Your task to perform on an android device: Open Reddit.com Image 0: 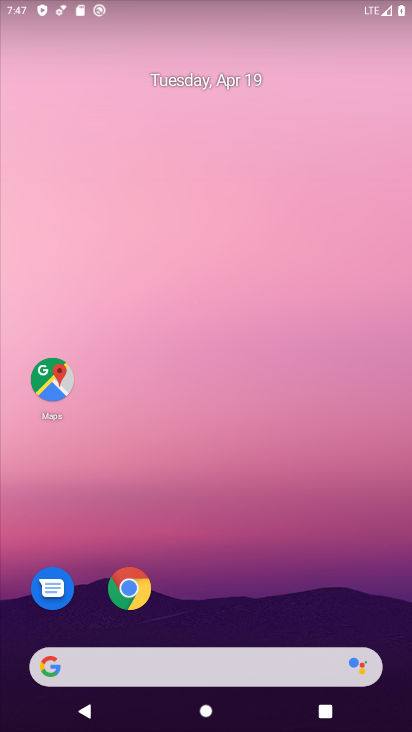
Step 0: drag from (208, 527) to (196, 50)
Your task to perform on an android device: Open Reddit.com Image 1: 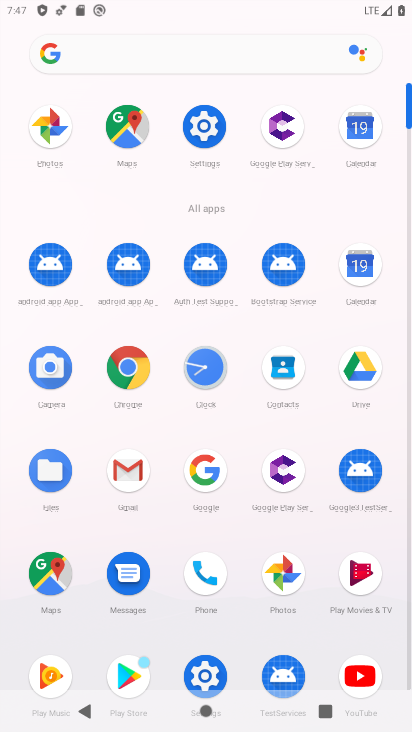
Step 1: click (125, 370)
Your task to perform on an android device: Open Reddit.com Image 2: 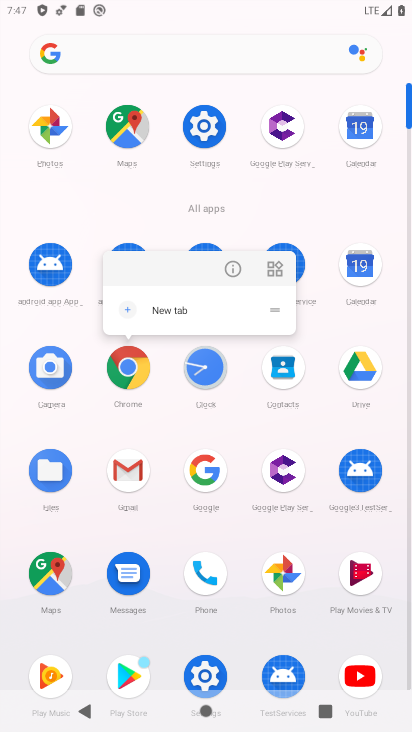
Step 2: click (129, 370)
Your task to perform on an android device: Open Reddit.com Image 3: 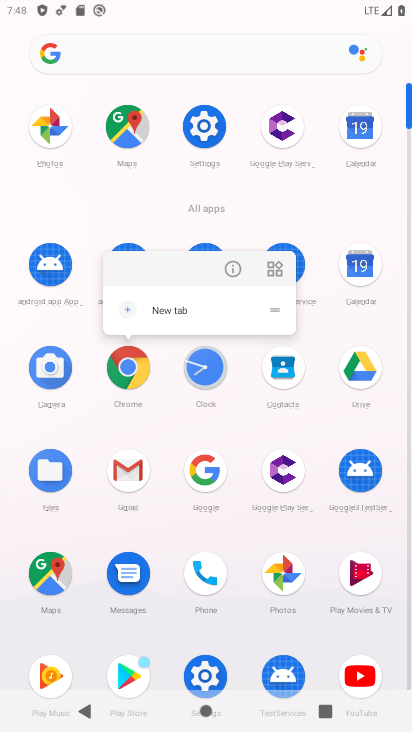
Step 3: click (117, 372)
Your task to perform on an android device: Open Reddit.com Image 4: 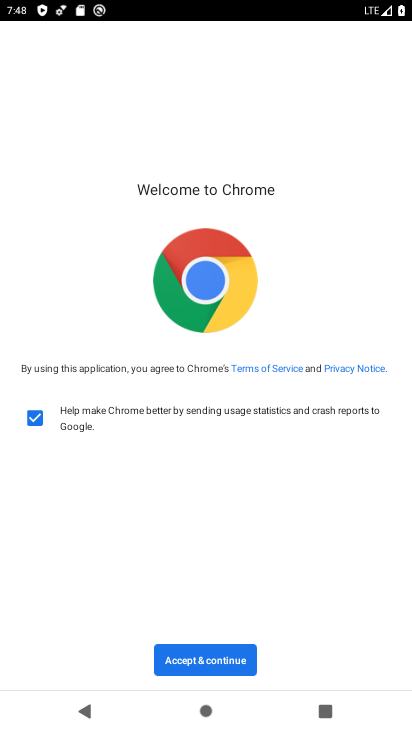
Step 4: click (214, 650)
Your task to perform on an android device: Open Reddit.com Image 5: 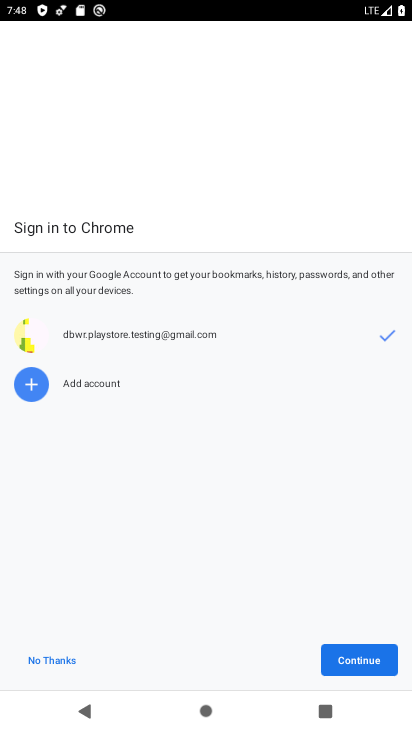
Step 5: click (345, 655)
Your task to perform on an android device: Open Reddit.com Image 6: 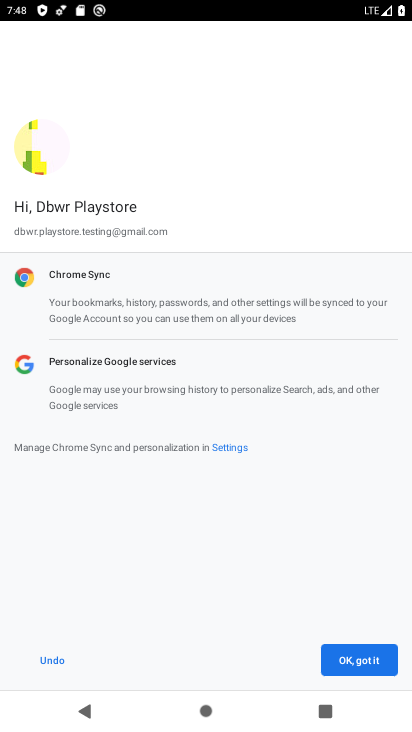
Step 6: click (352, 653)
Your task to perform on an android device: Open Reddit.com Image 7: 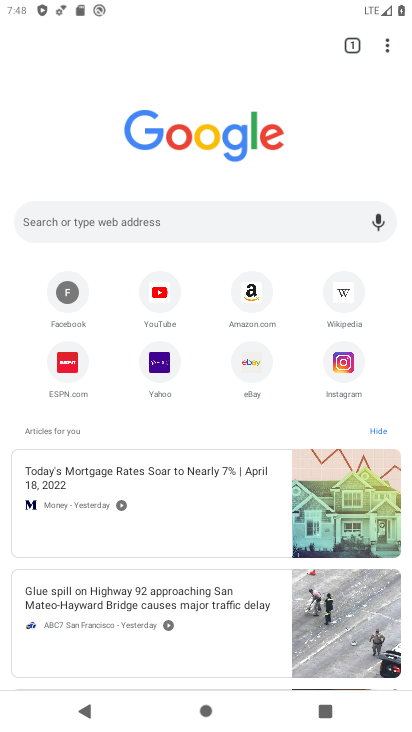
Step 7: click (108, 214)
Your task to perform on an android device: Open Reddit.com Image 8: 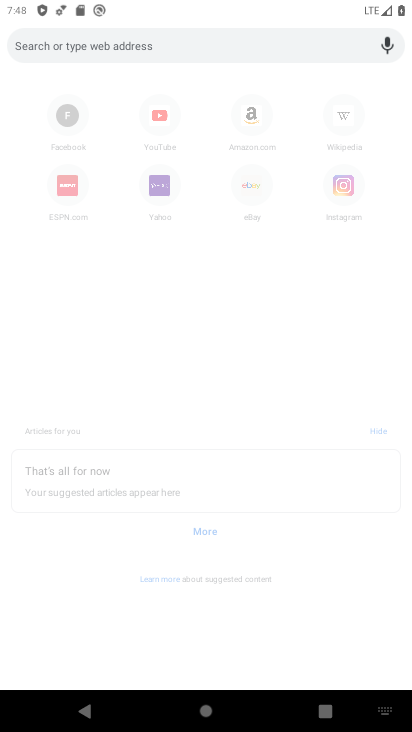
Step 8: type "reddit.com"
Your task to perform on an android device: Open Reddit.com Image 9: 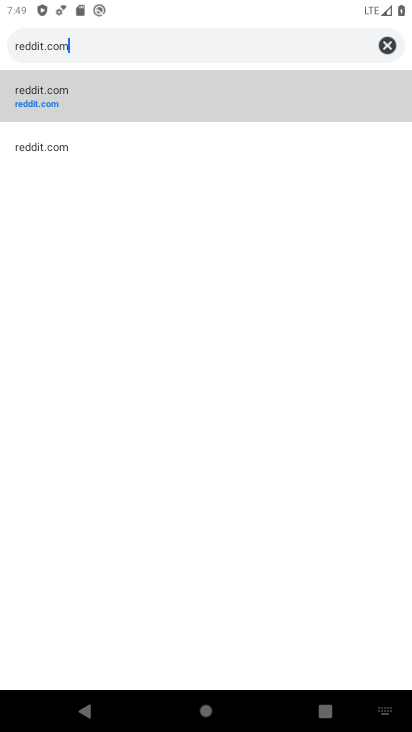
Step 9: click (27, 92)
Your task to perform on an android device: Open Reddit.com Image 10: 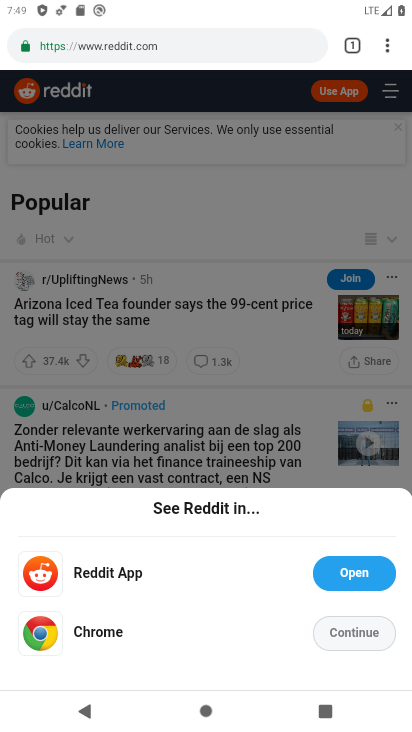
Step 10: click (364, 626)
Your task to perform on an android device: Open Reddit.com Image 11: 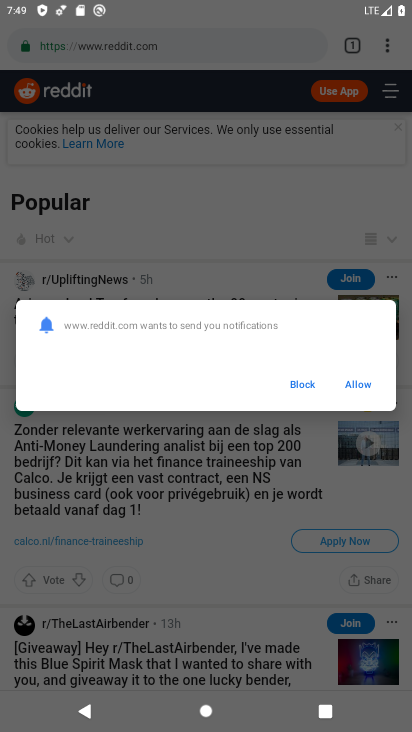
Step 11: click (296, 386)
Your task to perform on an android device: Open Reddit.com Image 12: 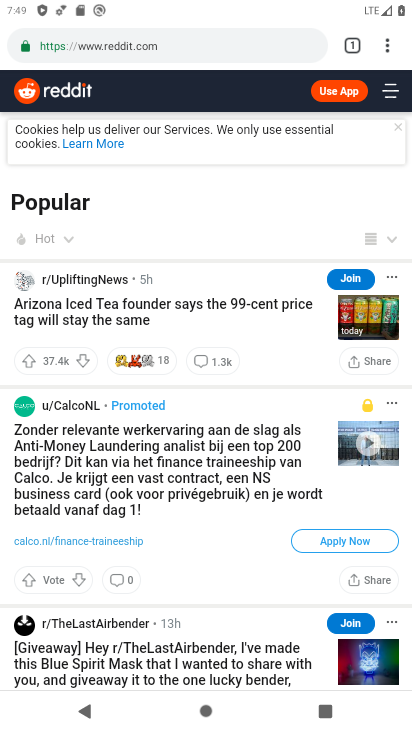
Step 12: task complete